Your task to perform on an android device: check data usage Image 0: 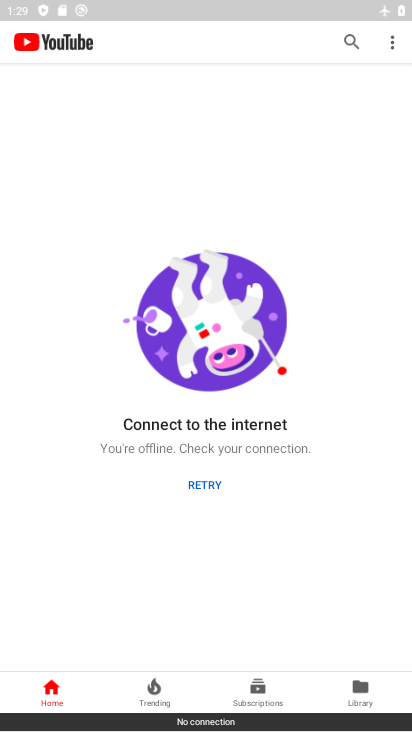
Step 0: press home button
Your task to perform on an android device: check data usage Image 1: 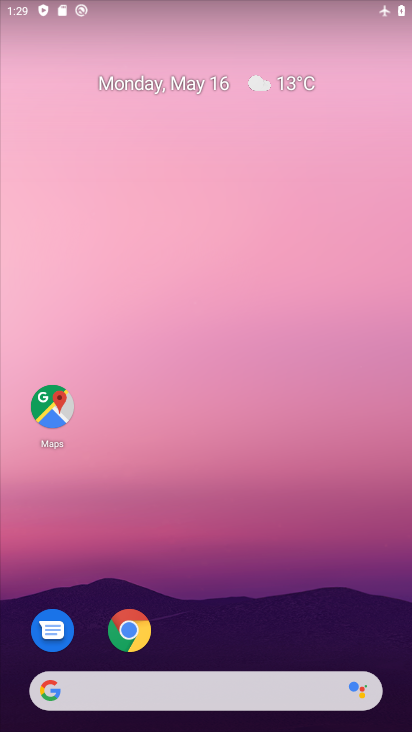
Step 1: drag from (232, 532) to (148, 151)
Your task to perform on an android device: check data usage Image 2: 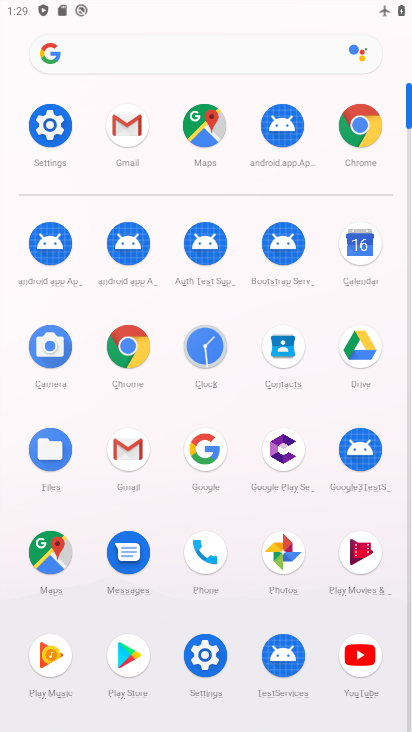
Step 2: click (49, 106)
Your task to perform on an android device: check data usage Image 3: 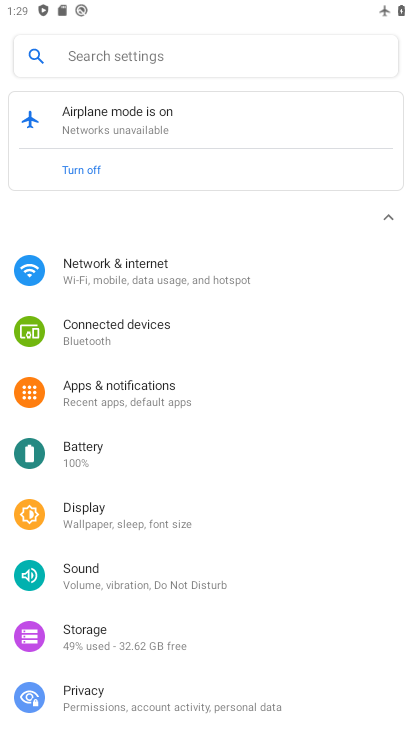
Step 3: click (101, 269)
Your task to perform on an android device: check data usage Image 4: 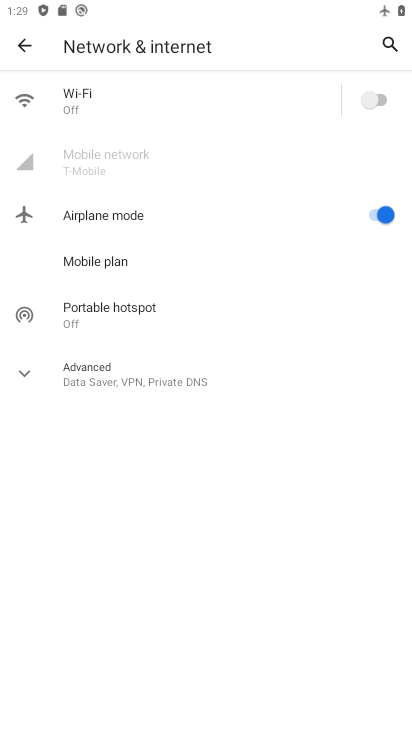
Step 4: click (377, 207)
Your task to perform on an android device: check data usage Image 5: 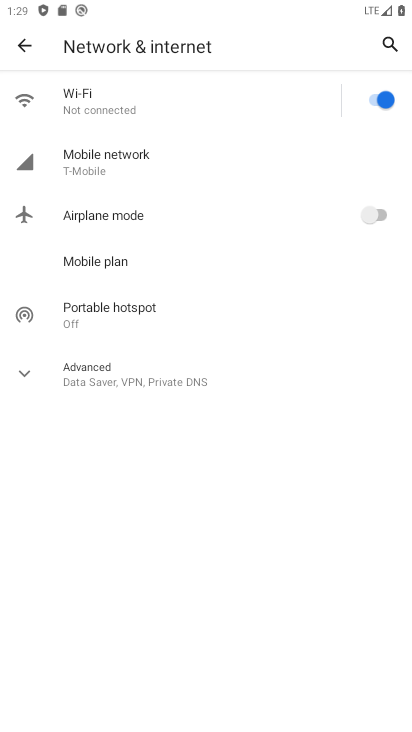
Step 5: click (208, 172)
Your task to perform on an android device: check data usage Image 6: 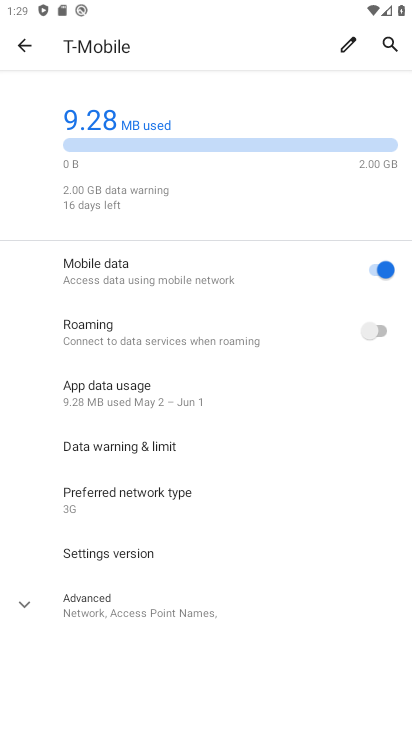
Step 6: task complete